Your task to perform on an android device: Go to calendar. Show me events next week Image 0: 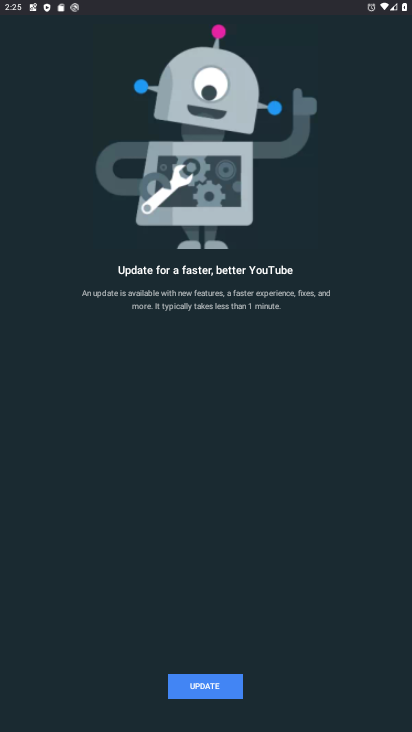
Step 0: press home button
Your task to perform on an android device: Go to calendar. Show me events next week Image 1: 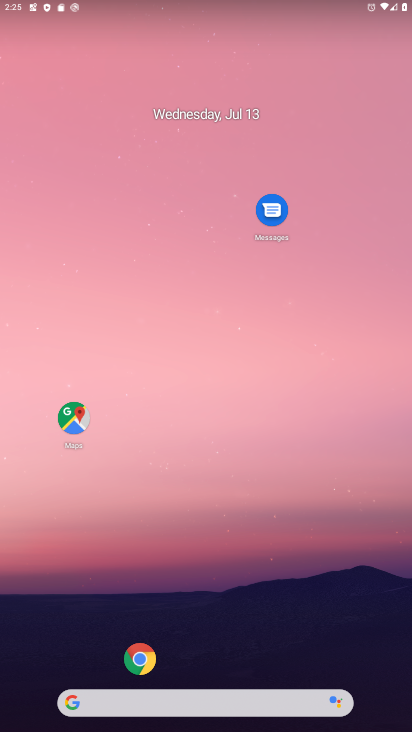
Step 1: drag from (45, 655) to (192, 33)
Your task to perform on an android device: Go to calendar. Show me events next week Image 2: 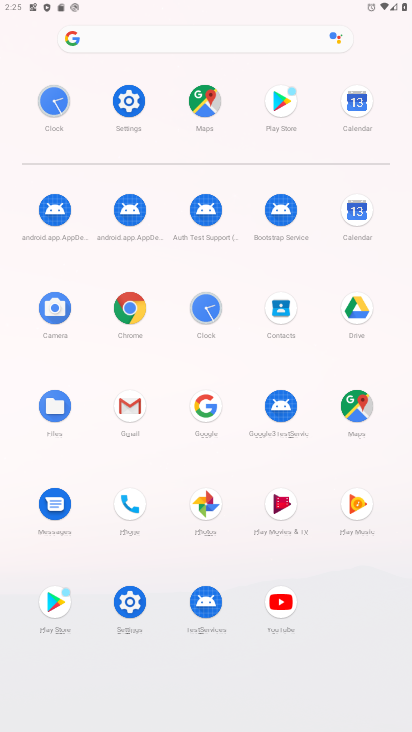
Step 2: click (351, 210)
Your task to perform on an android device: Go to calendar. Show me events next week Image 3: 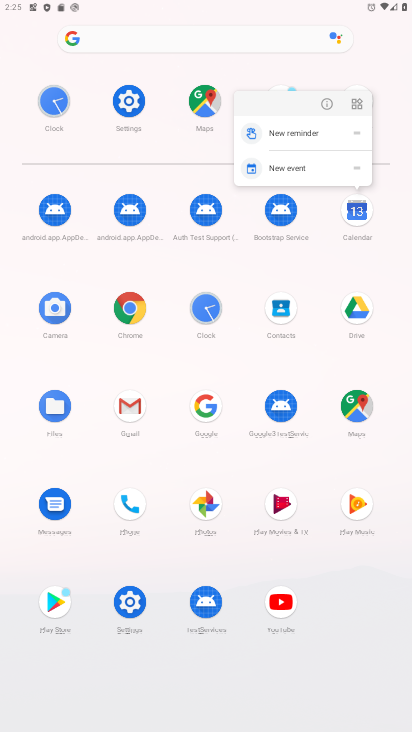
Step 3: click (351, 222)
Your task to perform on an android device: Go to calendar. Show me events next week Image 4: 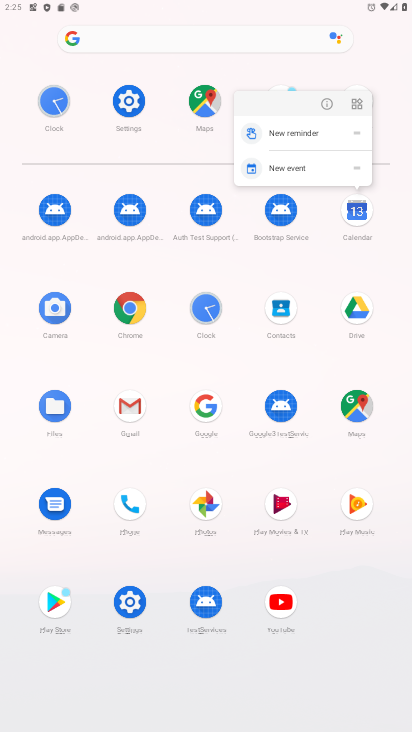
Step 4: click (351, 221)
Your task to perform on an android device: Go to calendar. Show me events next week Image 5: 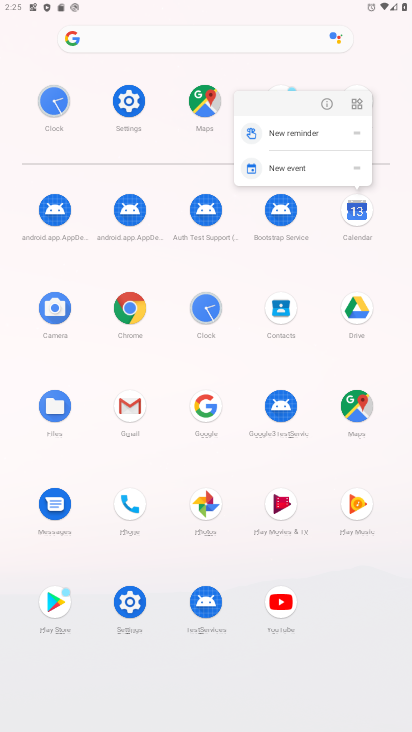
Step 5: task complete